Your task to perform on an android device: open a bookmark in the chrome app Image 0: 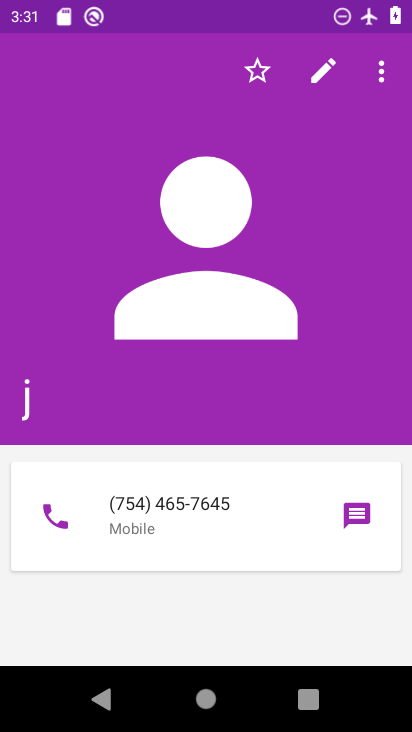
Step 0: press home button
Your task to perform on an android device: open a bookmark in the chrome app Image 1: 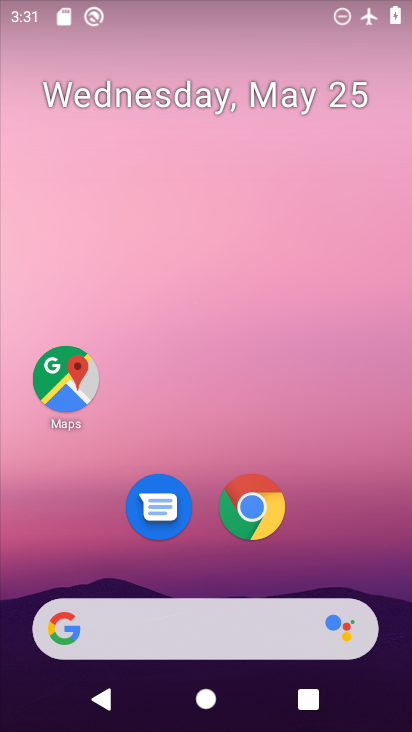
Step 1: click (268, 525)
Your task to perform on an android device: open a bookmark in the chrome app Image 2: 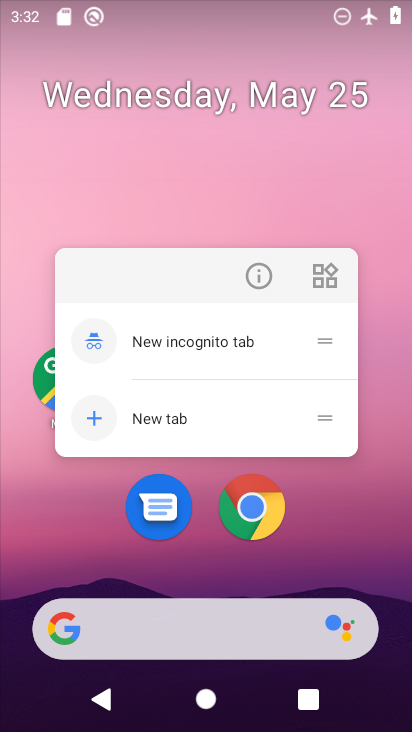
Step 2: click (268, 525)
Your task to perform on an android device: open a bookmark in the chrome app Image 3: 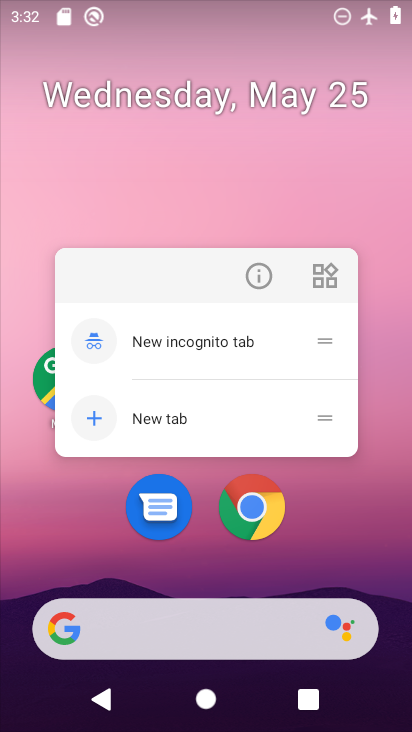
Step 3: click (222, 171)
Your task to perform on an android device: open a bookmark in the chrome app Image 4: 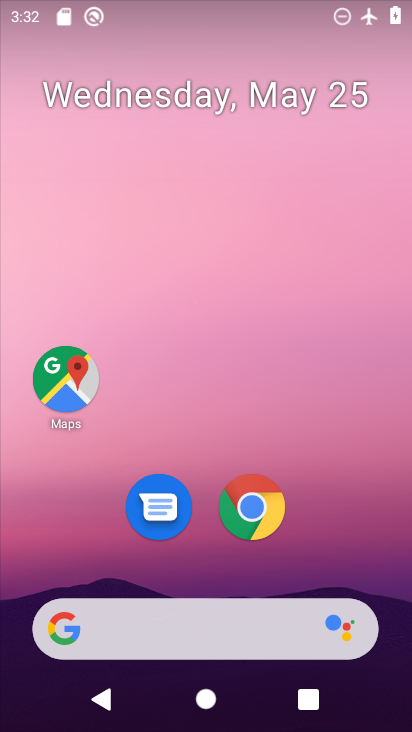
Step 4: click (268, 515)
Your task to perform on an android device: open a bookmark in the chrome app Image 5: 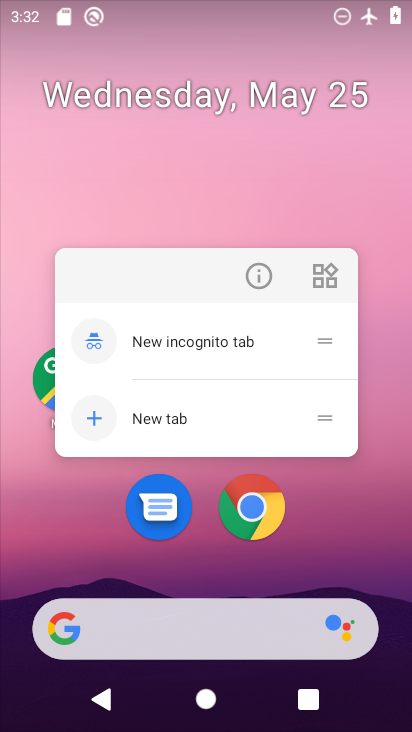
Step 5: drag from (256, 523) to (293, 583)
Your task to perform on an android device: open a bookmark in the chrome app Image 6: 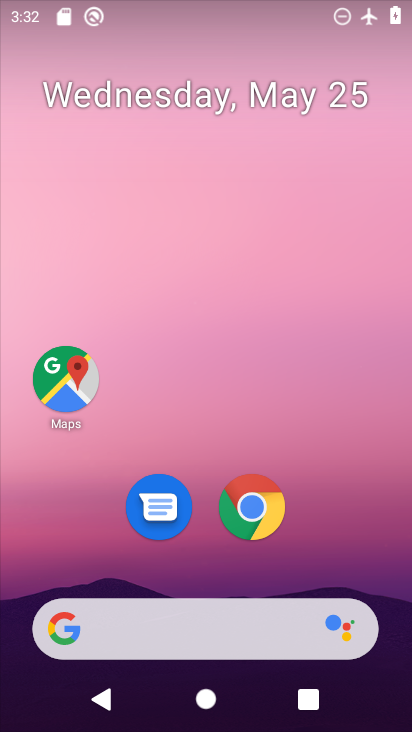
Step 6: click (231, 524)
Your task to perform on an android device: open a bookmark in the chrome app Image 7: 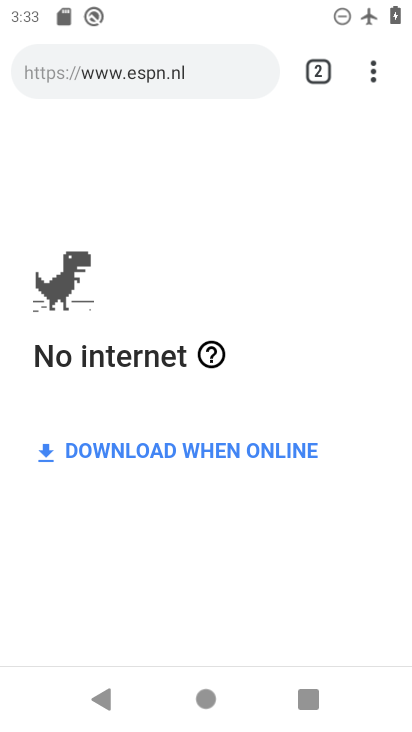
Step 7: click (365, 73)
Your task to perform on an android device: open a bookmark in the chrome app Image 8: 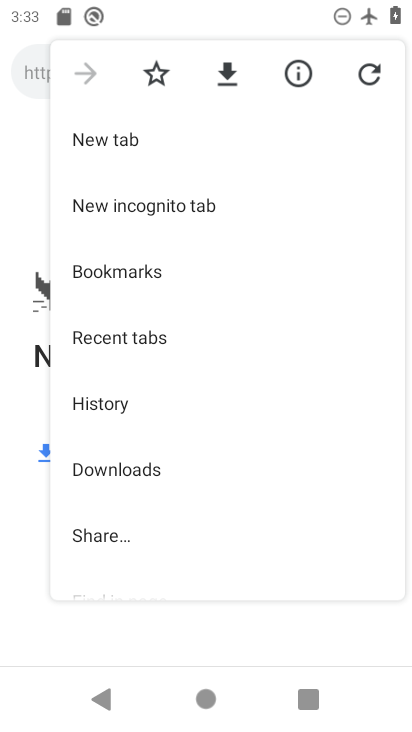
Step 8: click (161, 277)
Your task to perform on an android device: open a bookmark in the chrome app Image 9: 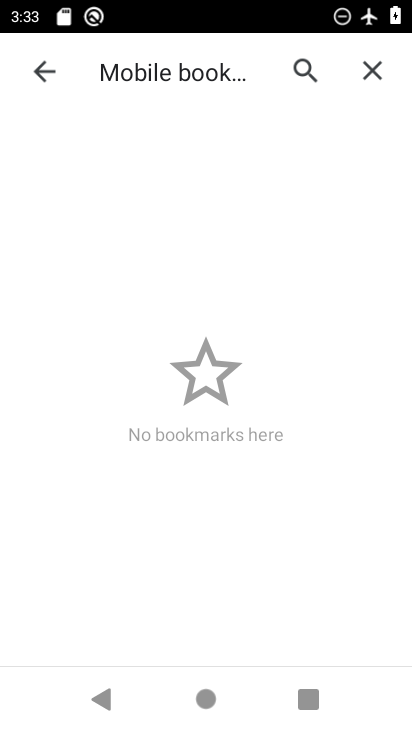
Step 9: task complete